Your task to perform on an android device: turn on javascript in the chrome app Image 0: 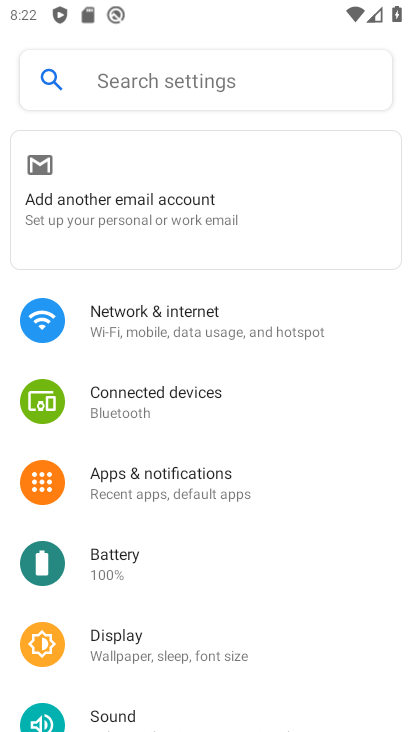
Step 0: press home button
Your task to perform on an android device: turn on javascript in the chrome app Image 1: 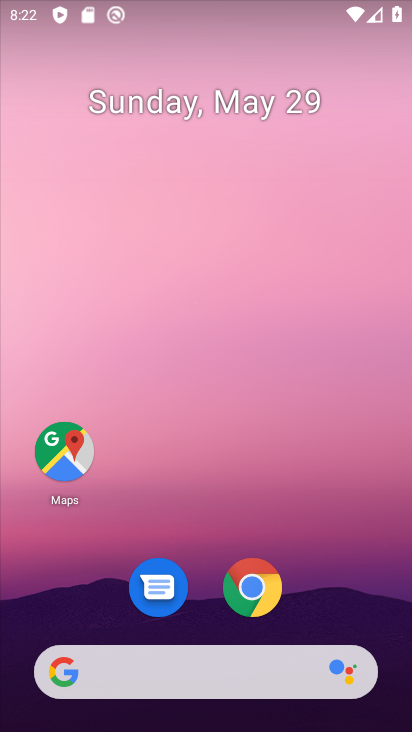
Step 1: click (261, 585)
Your task to perform on an android device: turn on javascript in the chrome app Image 2: 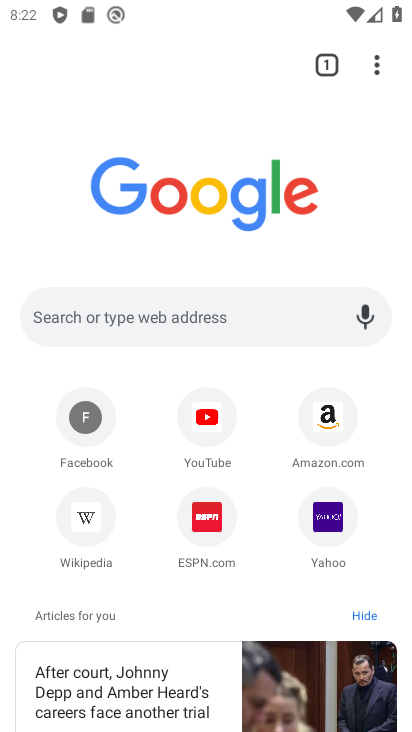
Step 2: click (390, 58)
Your task to perform on an android device: turn on javascript in the chrome app Image 3: 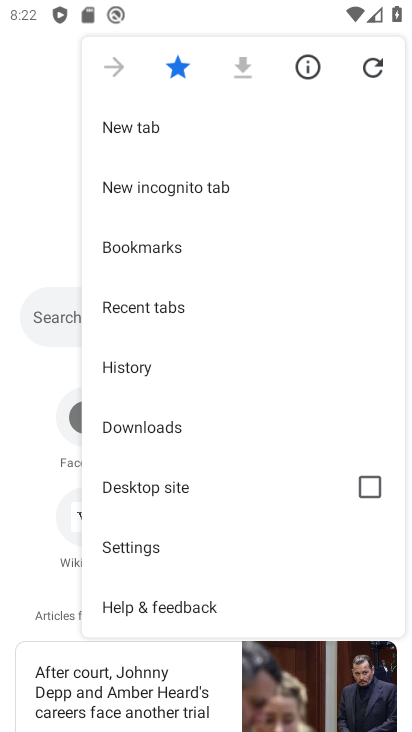
Step 3: click (180, 556)
Your task to perform on an android device: turn on javascript in the chrome app Image 4: 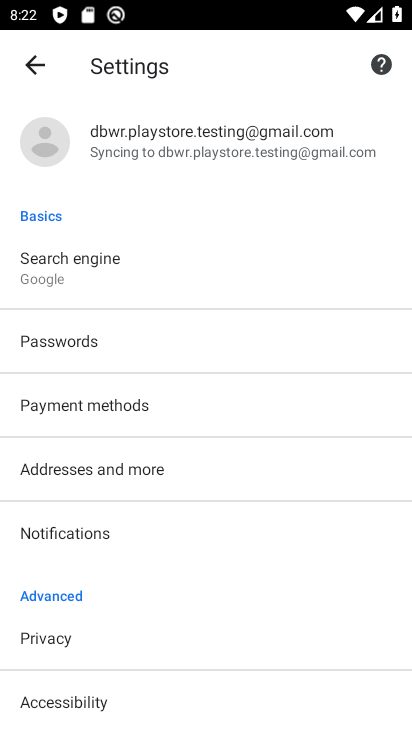
Step 4: drag from (180, 556) to (218, 173)
Your task to perform on an android device: turn on javascript in the chrome app Image 5: 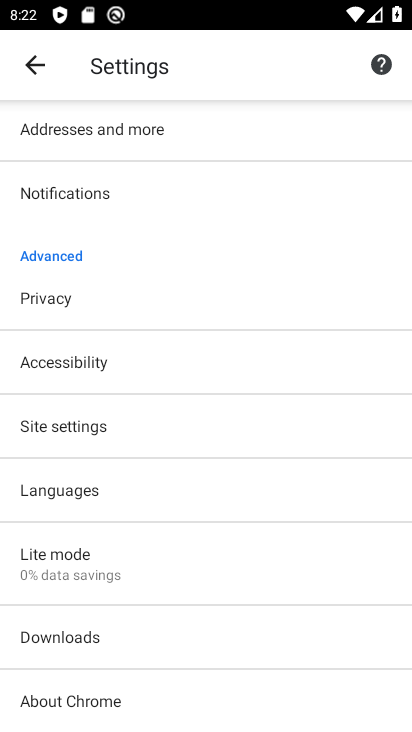
Step 5: drag from (201, 414) to (410, 9)
Your task to perform on an android device: turn on javascript in the chrome app Image 6: 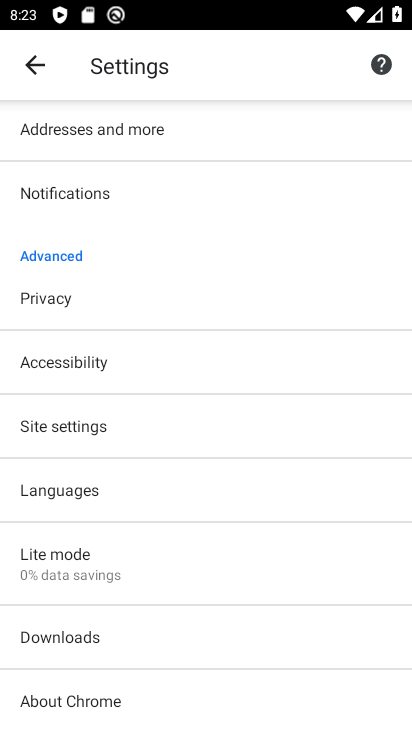
Step 6: click (115, 423)
Your task to perform on an android device: turn on javascript in the chrome app Image 7: 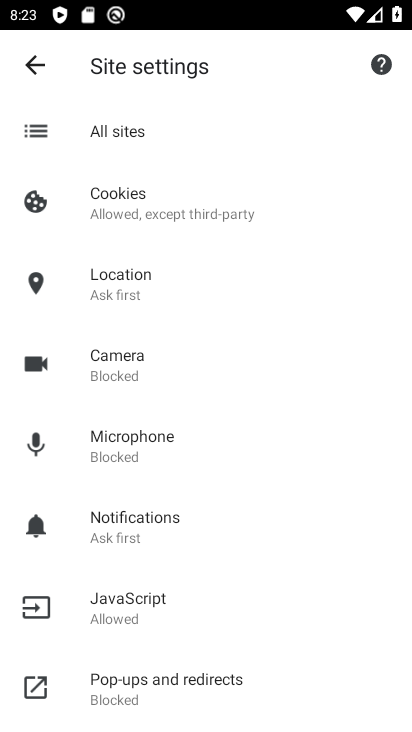
Step 7: click (205, 592)
Your task to perform on an android device: turn on javascript in the chrome app Image 8: 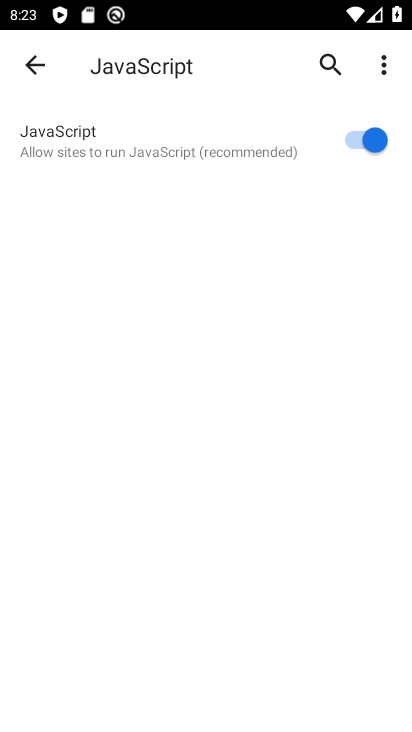
Step 8: task complete